Your task to perform on an android device: Open calendar and show me the fourth week of next month Image 0: 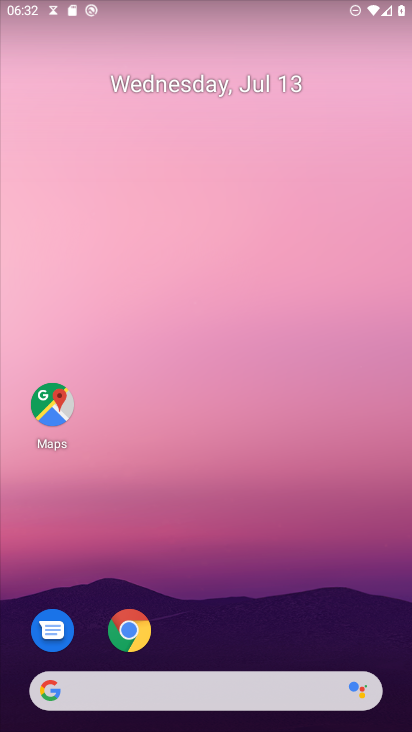
Step 0: drag from (225, 696) to (284, 5)
Your task to perform on an android device: Open calendar and show me the fourth week of next month Image 1: 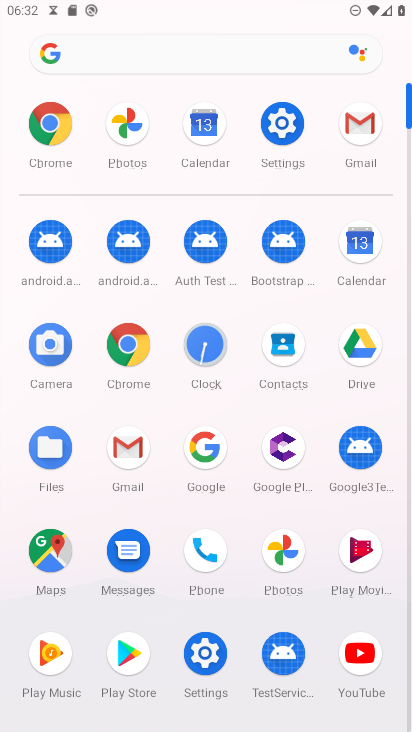
Step 1: click (353, 239)
Your task to perform on an android device: Open calendar and show me the fourth week of next month Image 2: 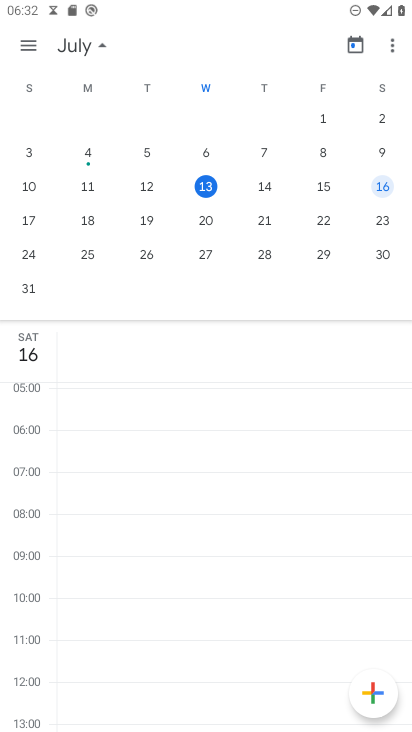
Step 2: click (98, 45)
Your task to perform on an android device: Open calendar and show me the fourth week of next month Image 3: 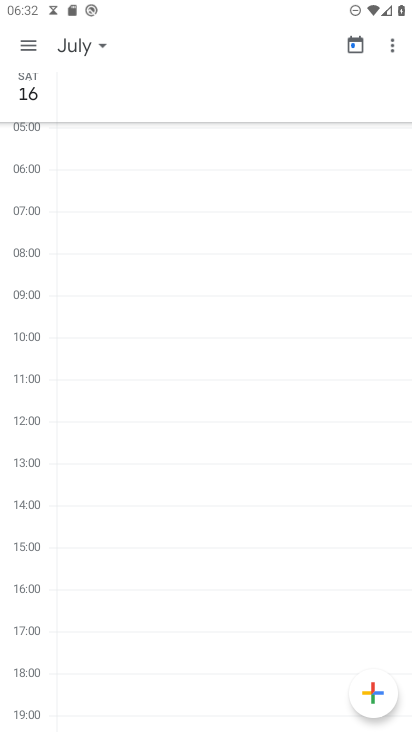
Step 3: click (91, 43)
Your task to perform on an android device: Open calendar and show me the fourth week of next month Image 4: 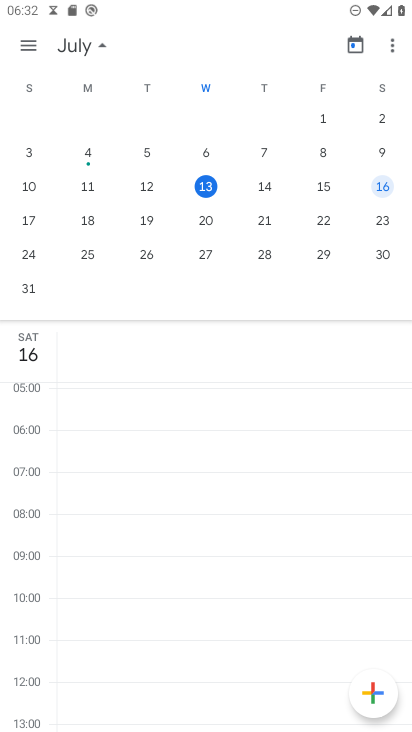
Step 4: drag from (338, 148) to (3, 186)
Your task to perform on an android device: Open calendar and show me the fourth week of next month Image 5: 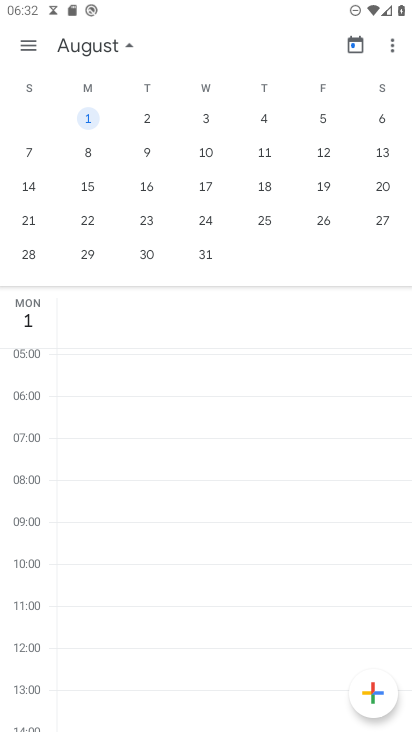
Step 5: click (200, 221)
Your task to perform on an android device: Open calendar and show me the fourth week of next month Image 6: 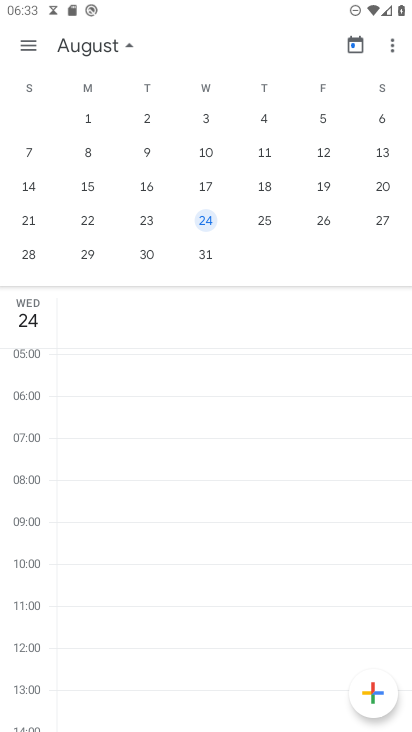
Step 6: click (33, 47)
Your task to perform on an android device: Open calendar and show me the fourth week of next month Image 7: 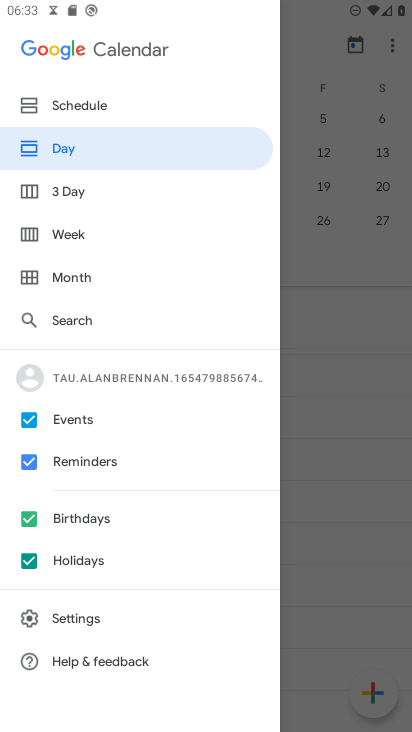
Step 7: click (79, 232)
Your task to perform on an android device: Open calendar and show me the fourth week of next month Image 8: 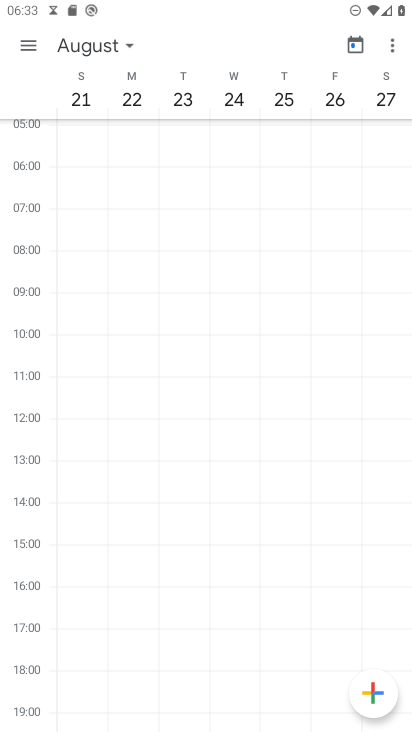
Step 8: task complete